Your task to perform on an android device: show emergency info Image 0: 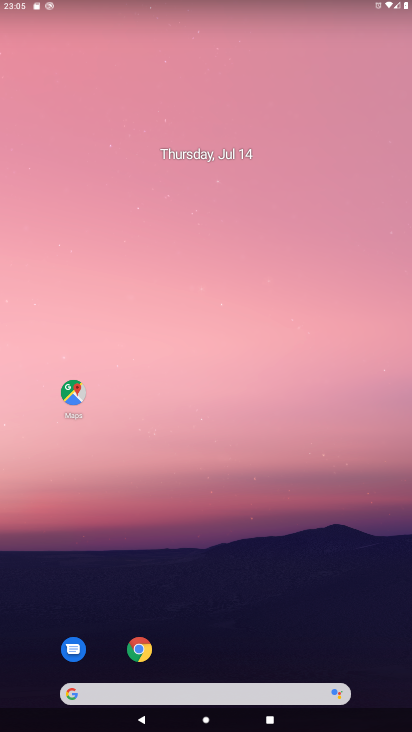
Step 0: drag from (184, 704) to (354, 22)
Your task to perform on an android device: show emergency info Image 1: 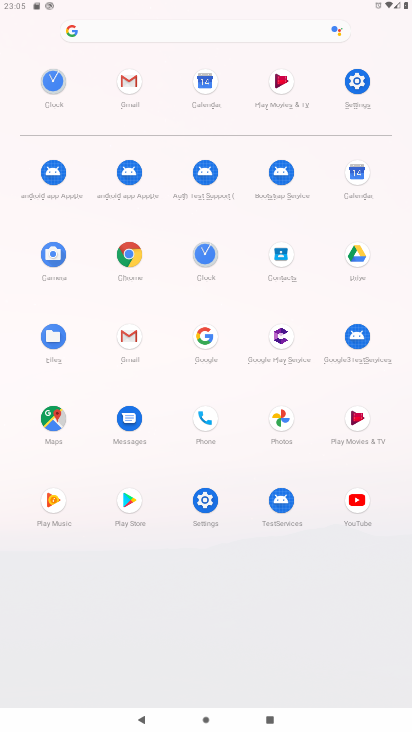
Step 1: click (333, 85)
Your task to perform on an android device: show emergency info Image 2: 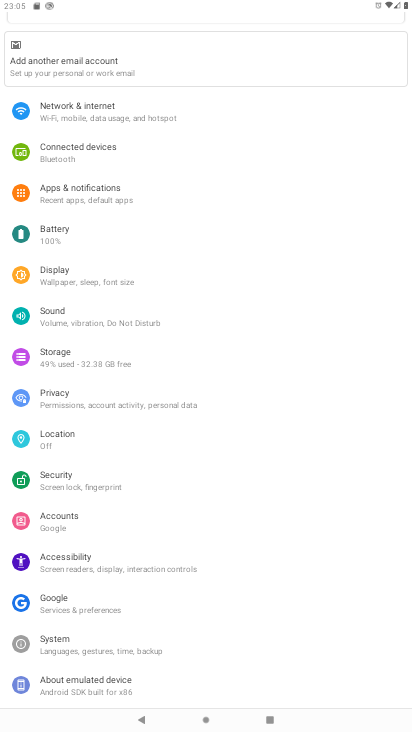
Step 2: click (120, 685)
Your task to perform on an android device: show emergency info Image 3: 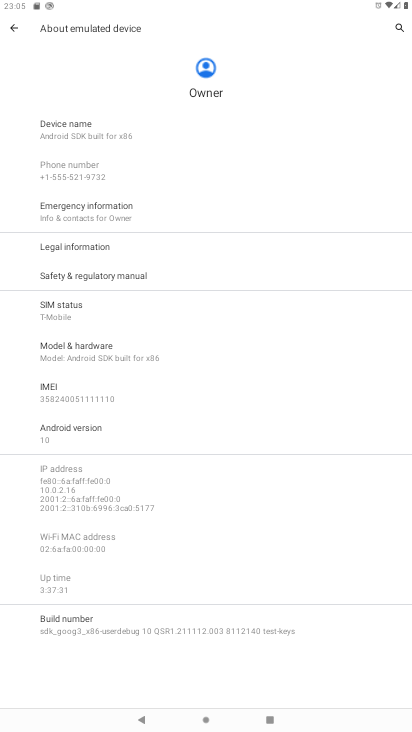
Step 3: click (115, 207)
Your task to perform on an android device: show emergency info Image 4: 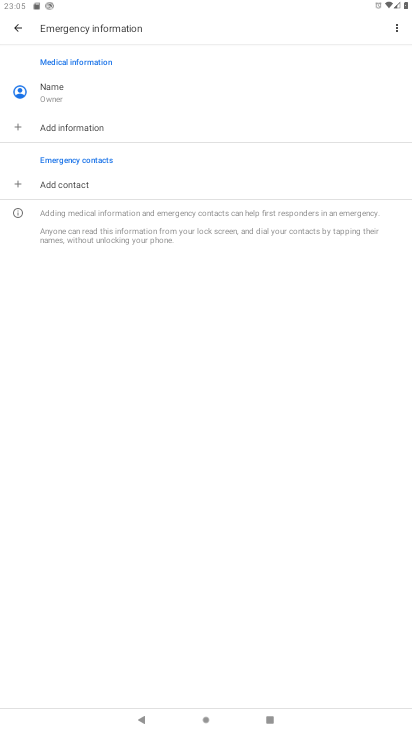
Step 4: task complete